Your task to perform on an android device: Go to Android settings Image 0: 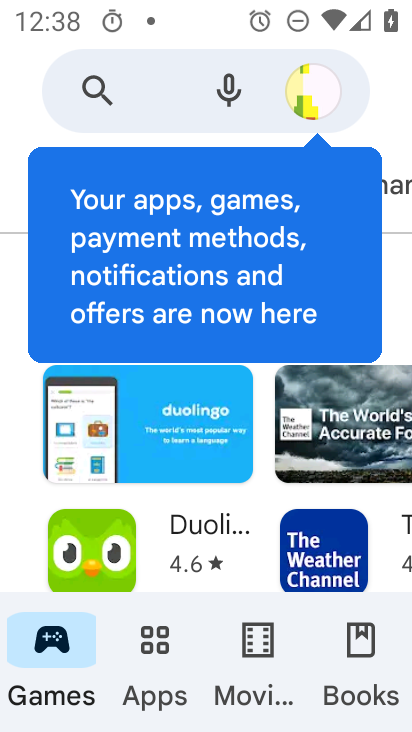
Step 0: press home button
Your task to perform on an android device: Go to Android settings Image 1: 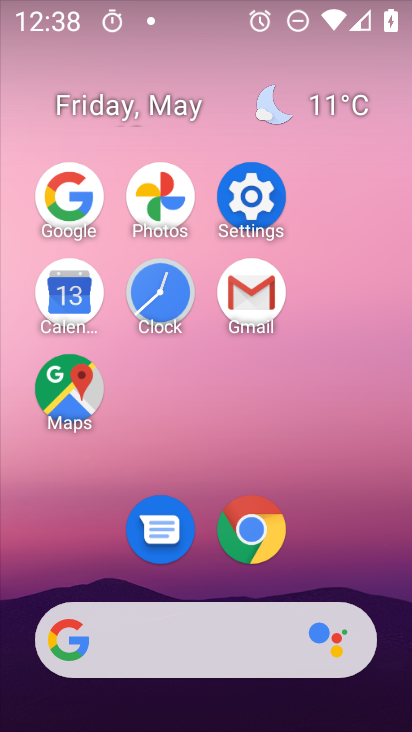
Step 1: click (256, 190)
Your task to perform on an android device: Go to Android settings Image 2: 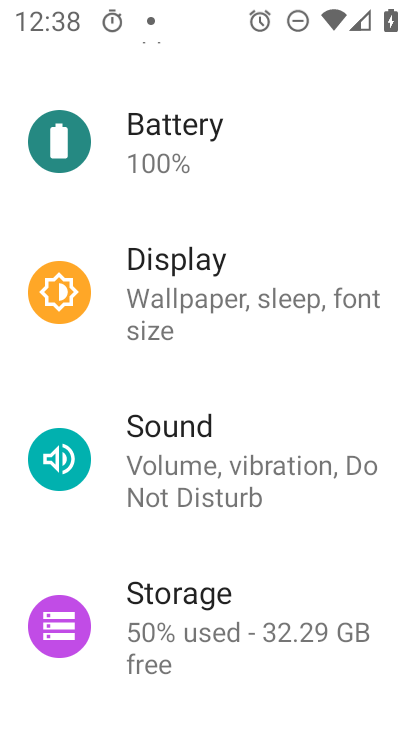
Step 2: task complete